Your task to perform on an android device: Open the calendar app, open the side menu, and click the "Day" option Image 0: 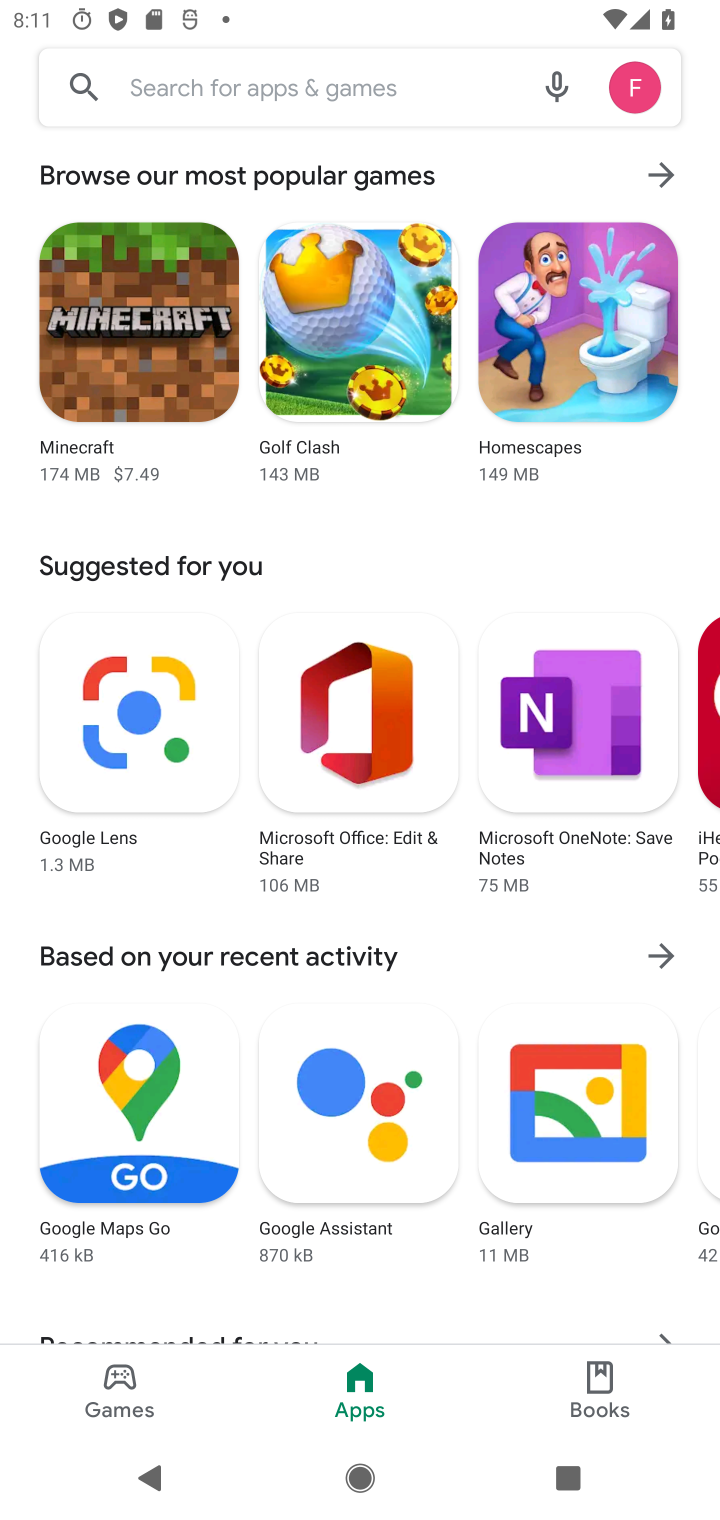
Step 0: press home button
Your task to perform on an android device: Open the calendar app, open the side menu, and click the "Day" option Image 1: 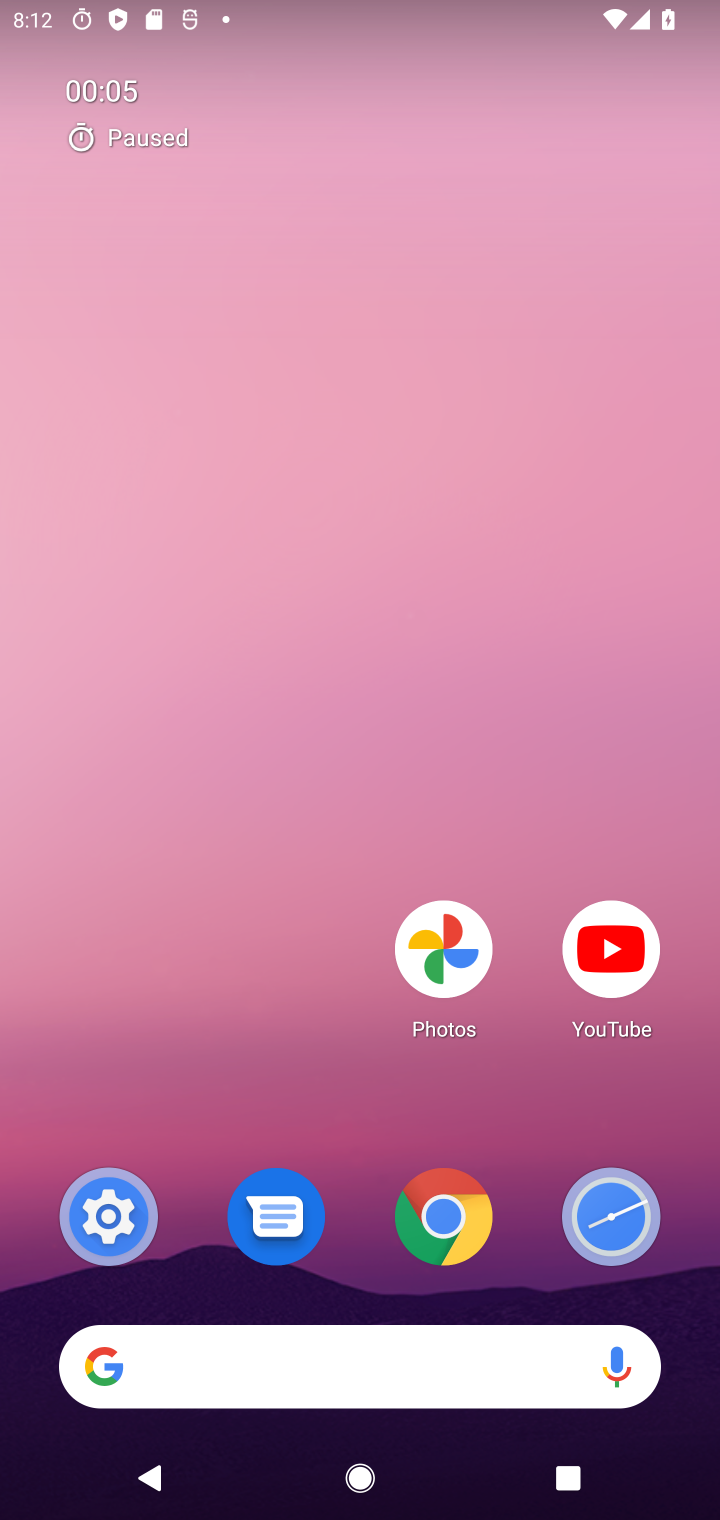
Step 1: drag from (372, 1276) to (305, 143)
Your task to perform on an android device: Open the calendar app, open the side menu, and click the "Day" option Image 2: 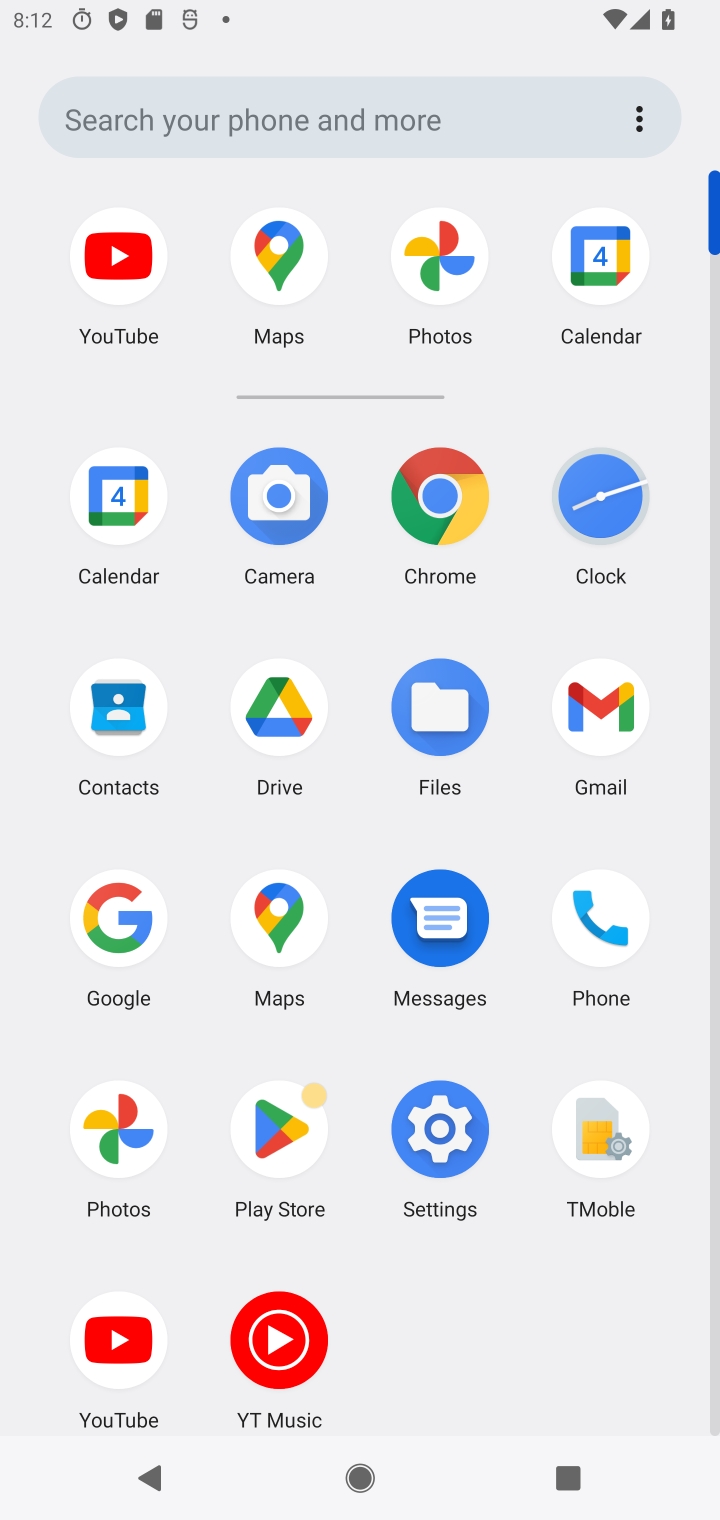
Step 2: click (137, 496)
Your task to perform on an android device: Open the calendar app, open the side menu, and click the "Day" option Image 3: 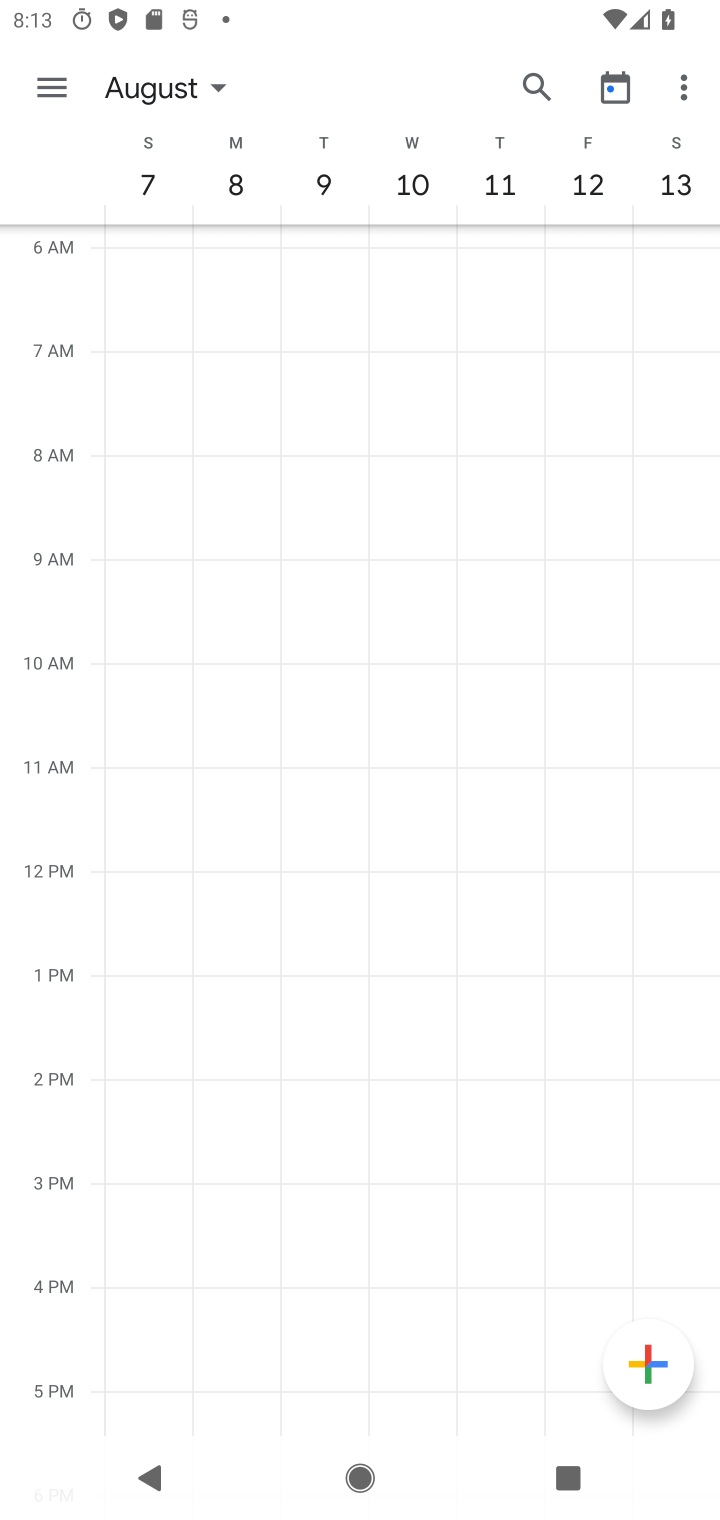
Step 3: click (64, 87)
Your task to perform on an android device: Open the calendar app, open the side menu, and click the "Day" option Image 4: 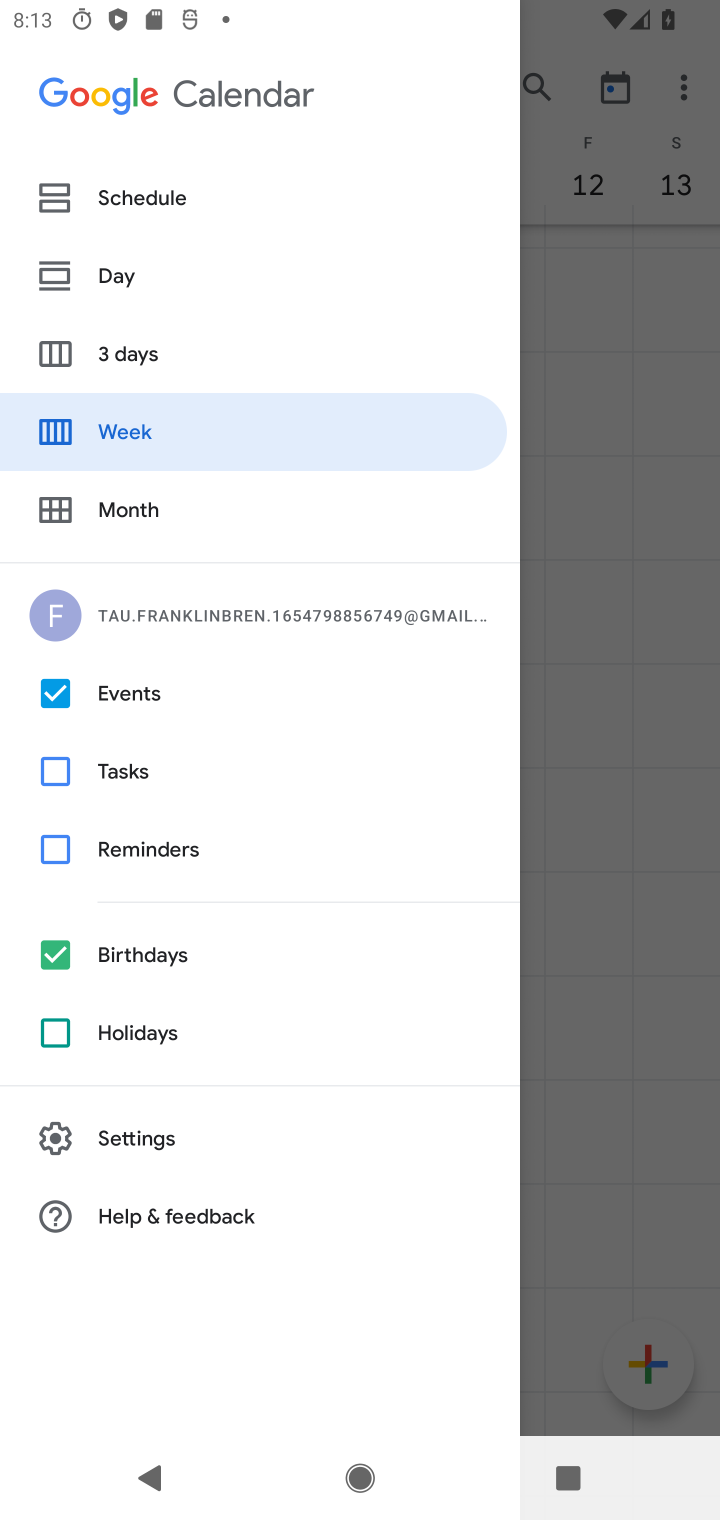
Step 4: click (127, 270)
Your task to perform on an android device: Open the calendar app, open the side menu, and click the "Day" option Image 5: 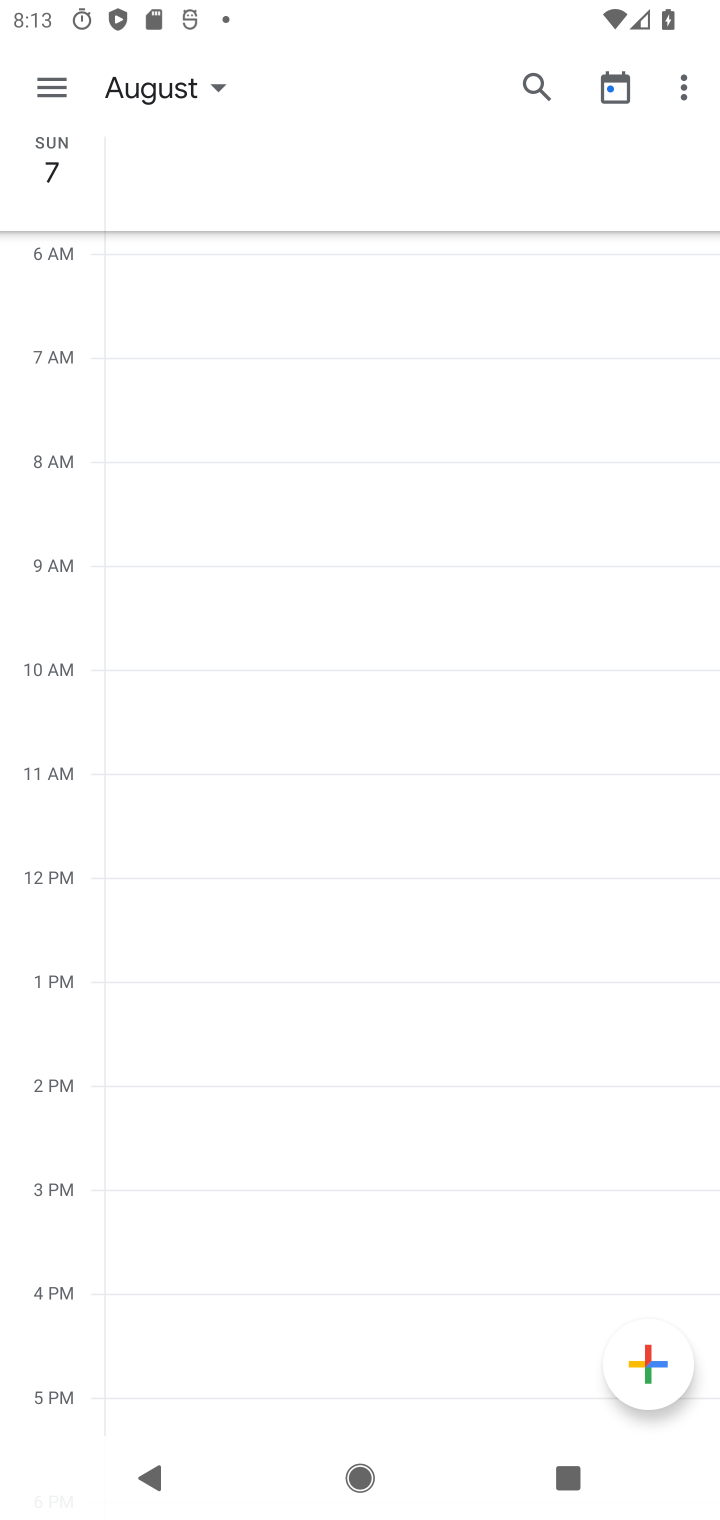
Step 5: task complete